Your task to perform on an android device: see sites visited before in the chrome app Image 0: 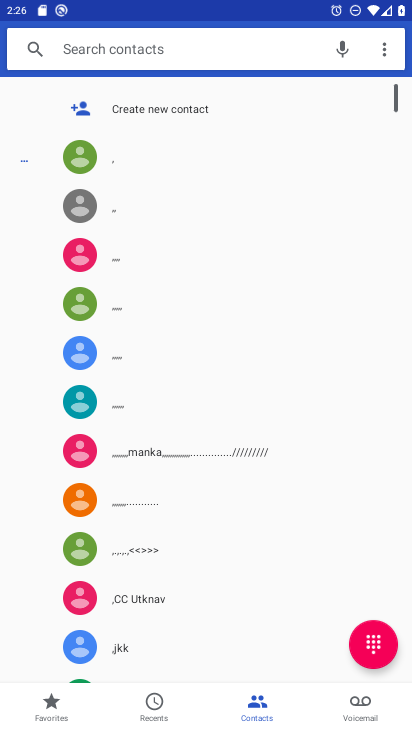
Step 0: press home button
Your task to perform on an android device: see sites visited before in the chrome app Image 1: 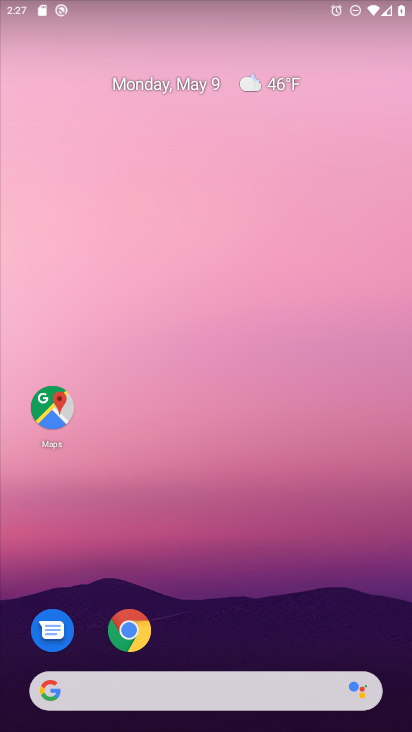
Step 1: drag from (285, 717) to (278, 260)
Your task to perform on an android device: see sites visited before in the chrome app Image 2: 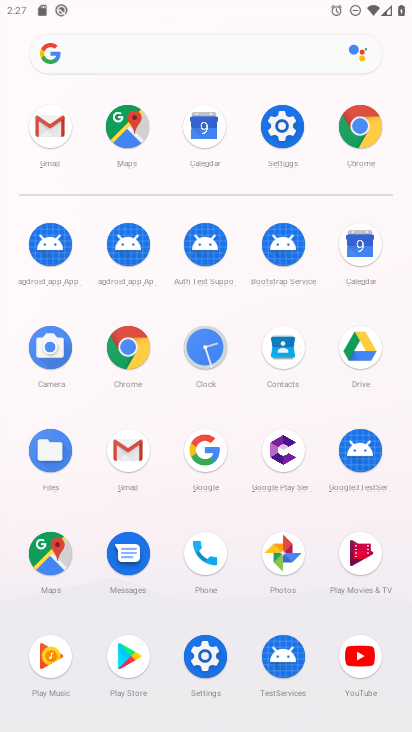
Step 2: click (361, 145)
Your task to perform on an android device: see sites visited before in the chrome app Image 3: 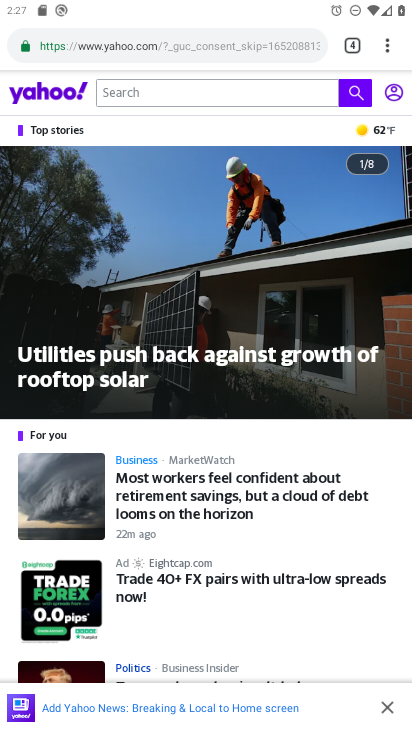
Step 3: click (378, 56)
Your task to perform on an android device: see sites visited before in the chrome app Image 4: 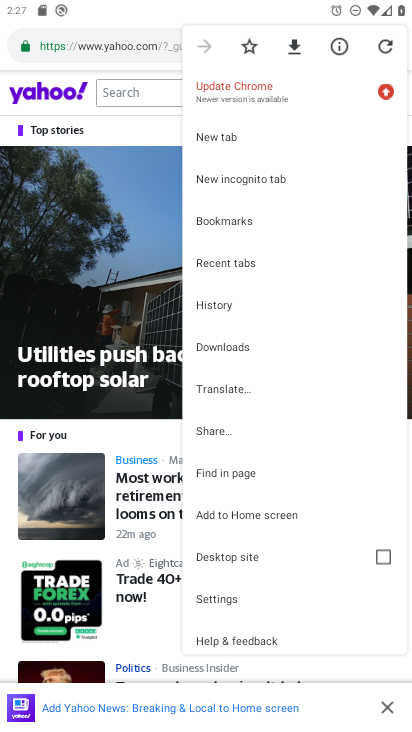
Step 4: click (216, 599)
Your task to perform on an android device: see sites visited before in the chrome app Image 5: 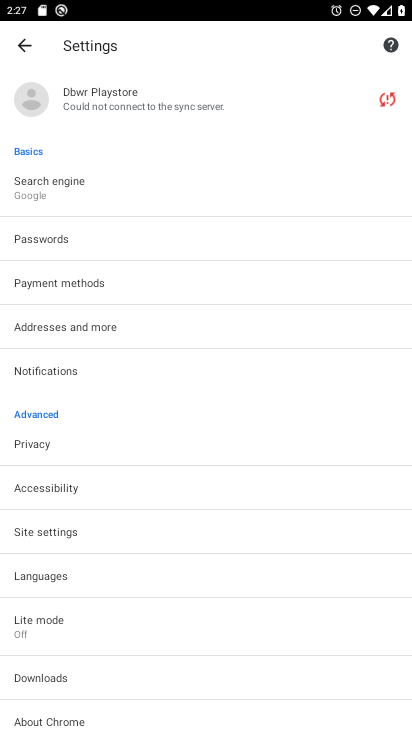
Step 5: click (59, 537)
Your task to perform on an android device: see sites visited before in the chrome app Image 6: 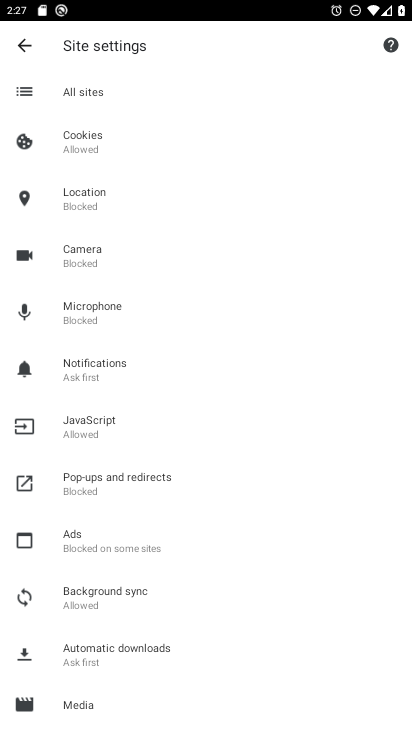
Step 6: click (97, 96)
Your task to perform on an android device: see sites visited before in the chrome app Image 7: 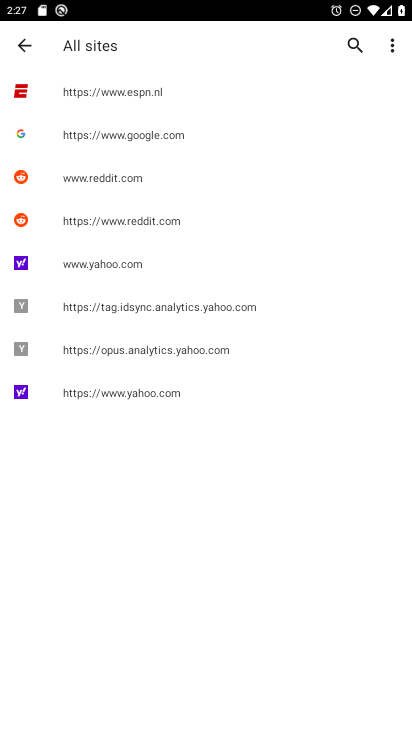
Step 7: task complete